Your task to perform on an android device: toggle javascript in the chrome app Image 0: 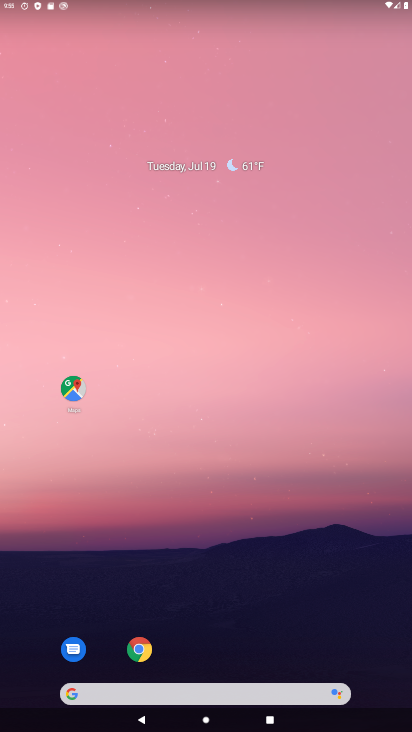
Step 0: click (236, 613)
Your task to perform on an android device: toggle javascript in the chrome app Image 1: 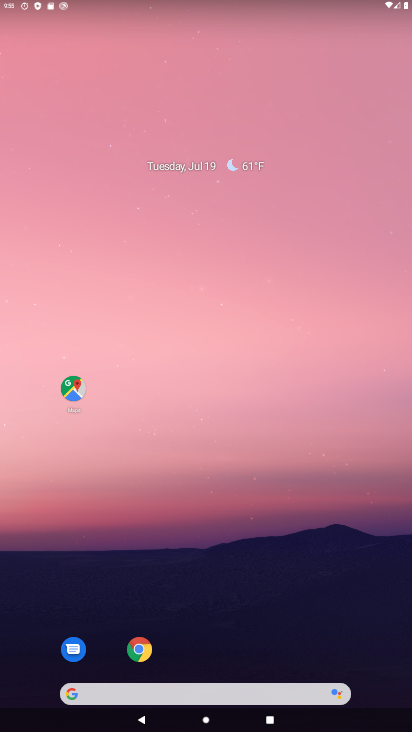
Step 1: click (143, 653)
Your task to perform on an android device: toggle javascript in the chrome app Image 2: 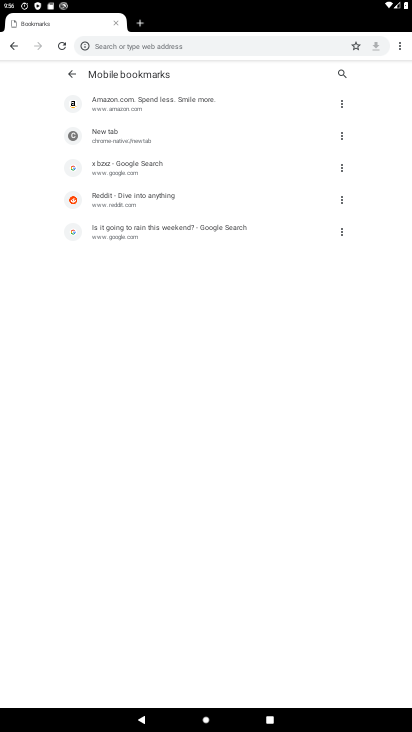
Step 2: click (398, 42)
Your task to perform on an android device: toggle javascript in the chrome app Image 3: 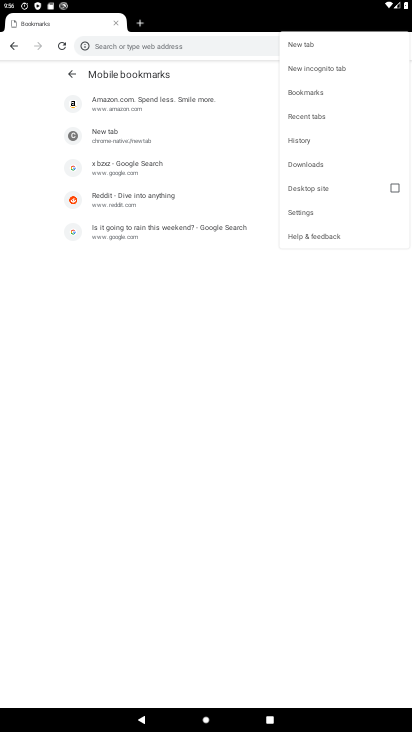
Step 3: click (319, 212)
Your task to perform on an android device: toggle javascript in the chrome app Image 4: 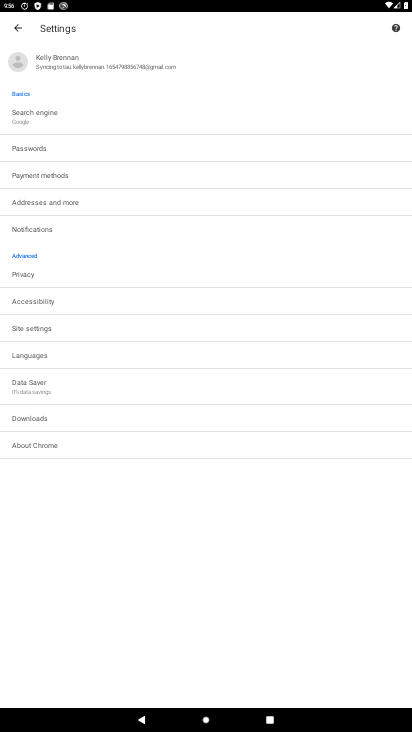
Step 4: click (53, 327)
Your task to perform on an android device: toggle javascript in the chrome app Image 5: 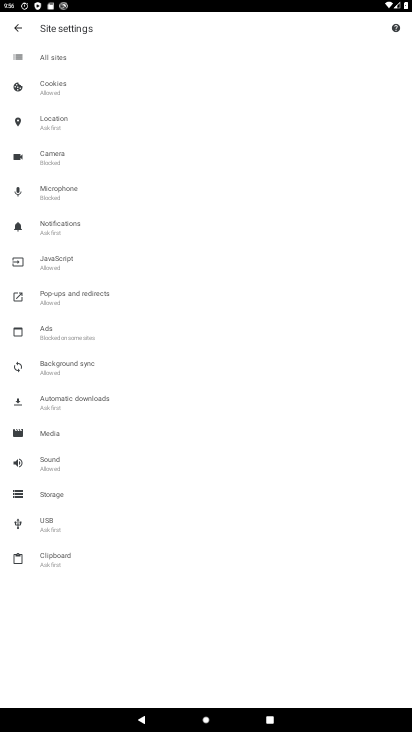
Step 5: click (82, 260)
Your task to perform on an android device: toggle javascript in the chrome app Image 6: 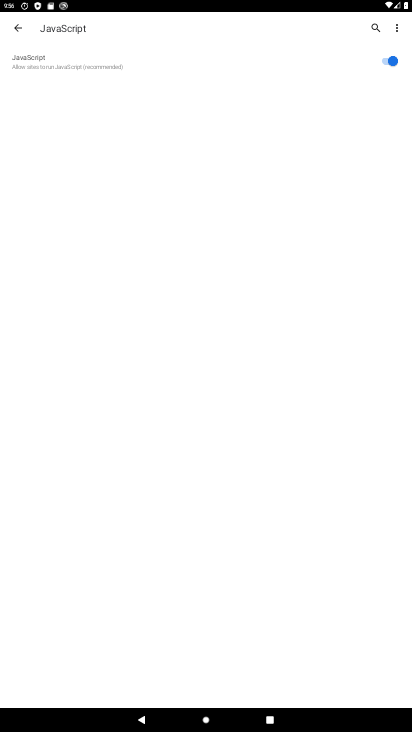
Step 6: click (386, 62)
Your task to perform on an android device: toggle javascript in the chrome app Image 7: 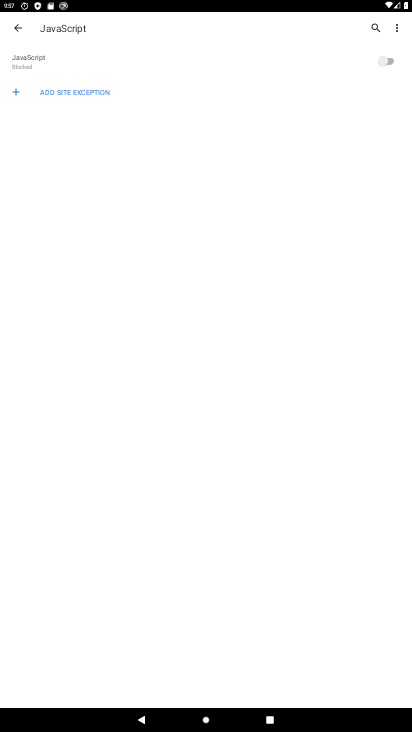
Step 7: task complete